Your task to perform on an android device: Turn on the flashlight Image 0: 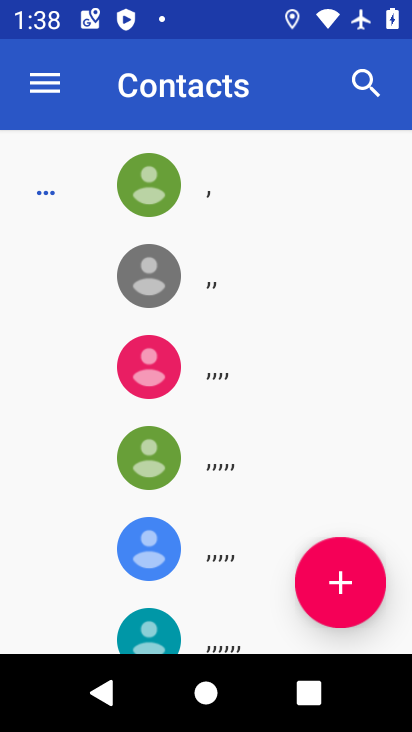
Step 0: press home button
Your task to perform on an android device: Turn on the flashlight Image 1: 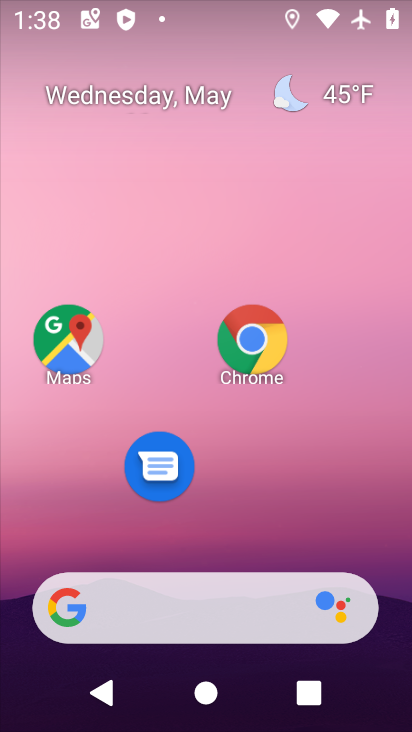
Step 1: drag from (232, 4) to (239, 433)
Your task to perform on an android device: Turn on the flashlight Image 2: 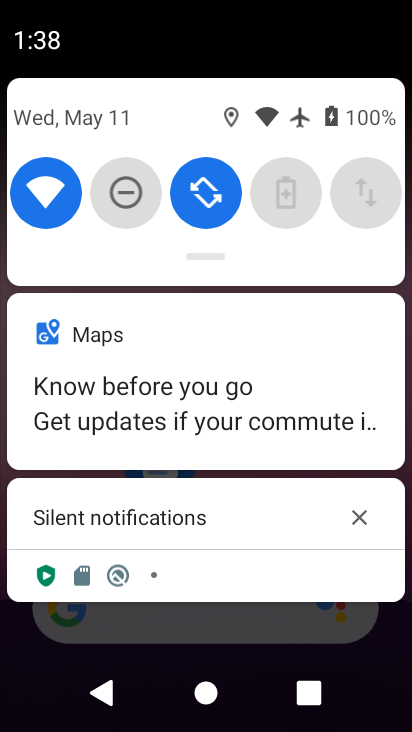
Step 2: drag from (225, 228) to (212, 510)
Your task to perform on an android device: Turn on the flashlight Image 3: 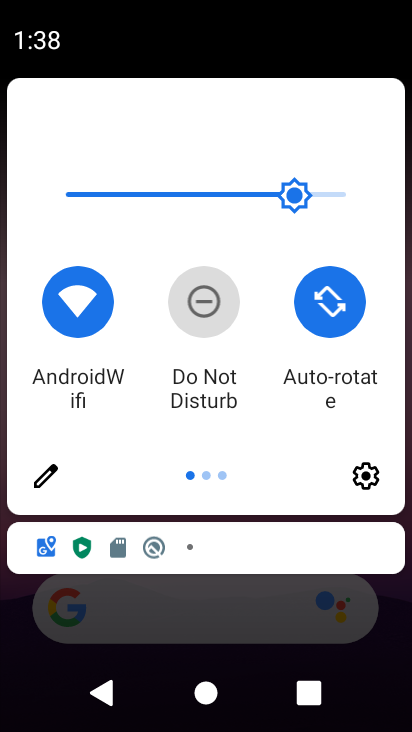
Step 3: drag from (310, 416) to (5, 431)
Your task to perform on an android device: Turn on the flashlight Image 4: 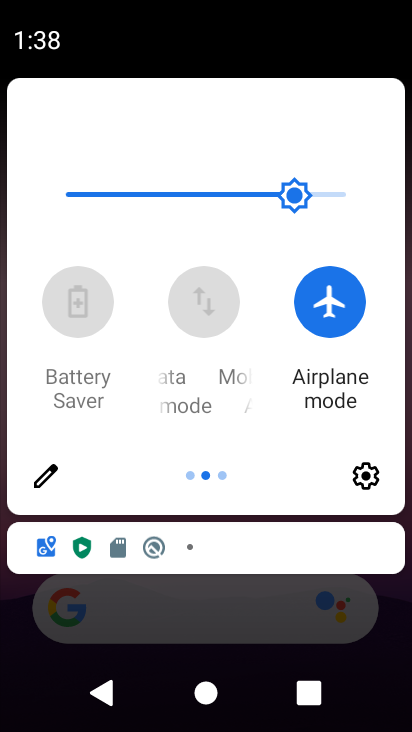
Step 4: click (49, 418)
Your task to perform on an android device: Turn on the flashlight Image 5: 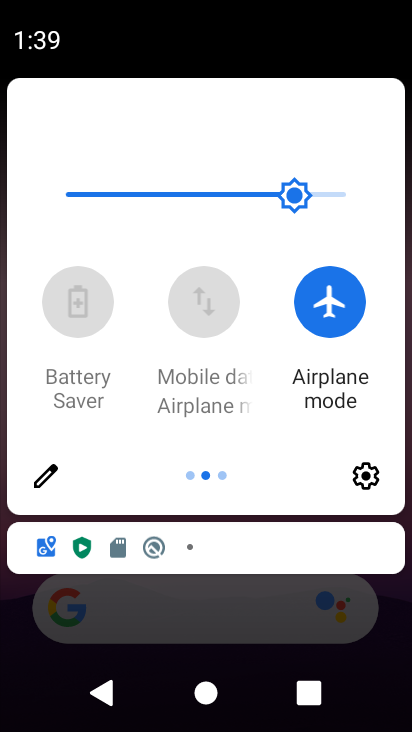
Step 5: task complete